Your task to perform on an android device: Go to Android settings Image 0: 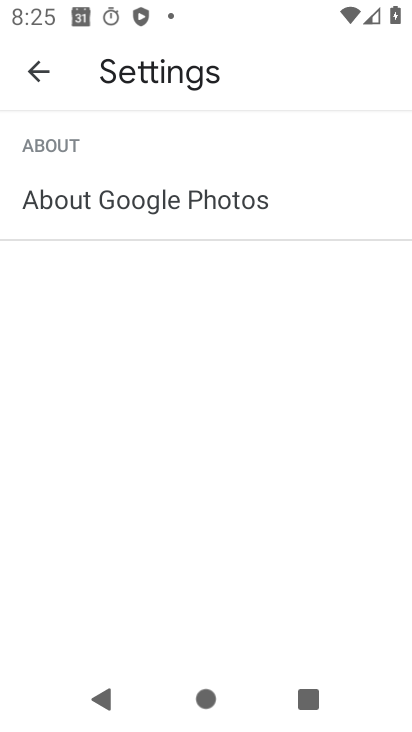
Step 0: press home button
Your task to perform on an android device: Go to Android settings Image 1: 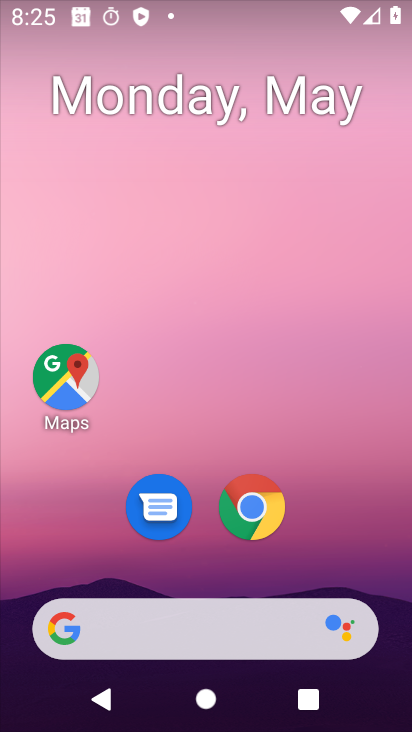
Step 1: drag from (209, 571) to (330, 38)
Your task to perform on an android device: Go to Android settings Image 2: 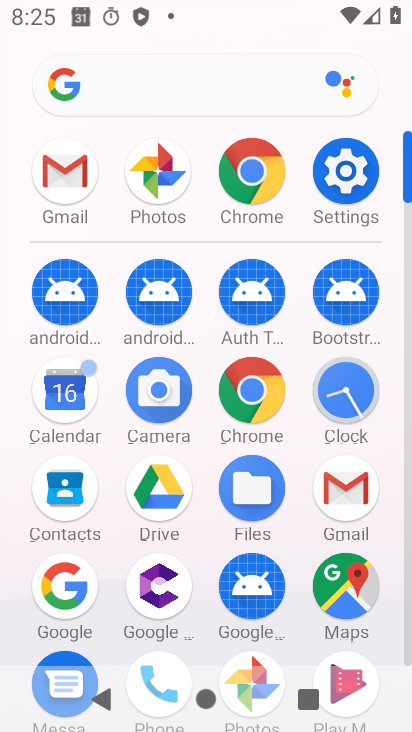
Step 2: click (358, 168)
Your task to perform on an android device: Go to Android settings Image 3: 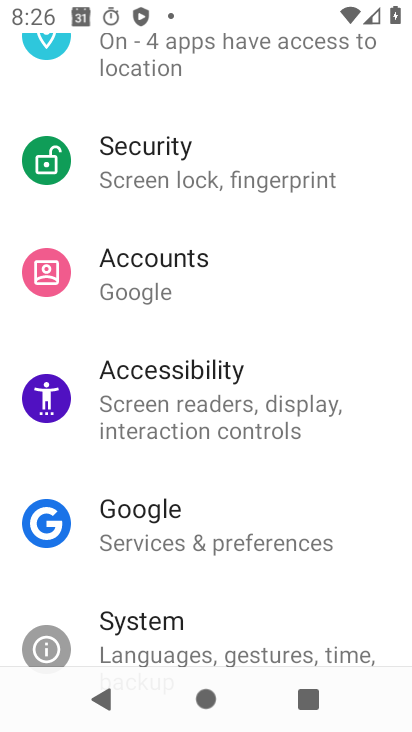
Step 3: drag from (208, 526) to (234, 148)
Your task to perform on an android device: Go to Android settings Image 4: 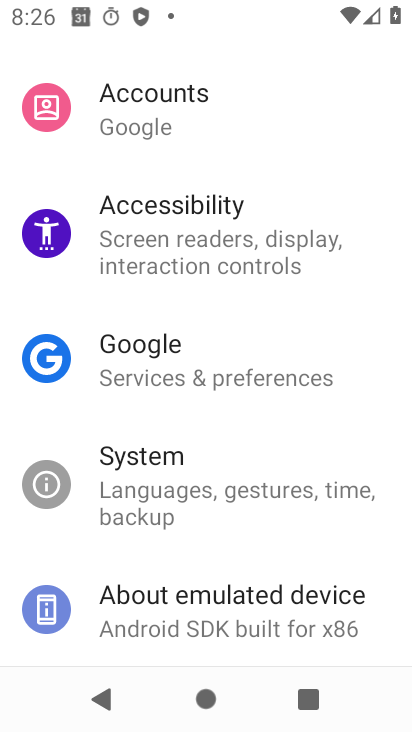
Step 4: drag from (159, 541) to (186, 413)
Your task to perform on an android device: Go to Android settings Image 5: 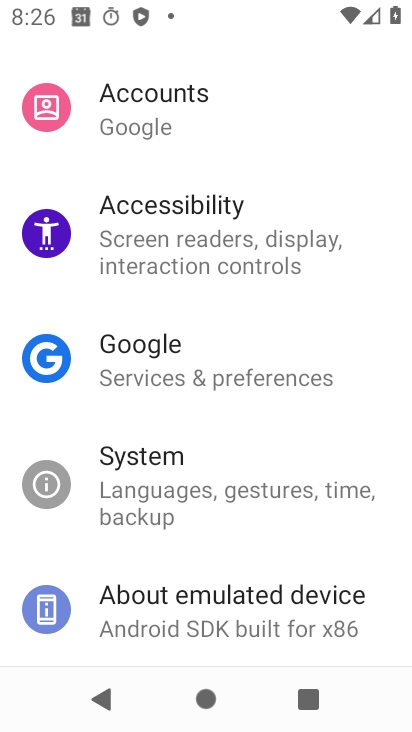
Step 5: click (191, 608)
Your task to perform on an android device: Go to Android settings Image 6: 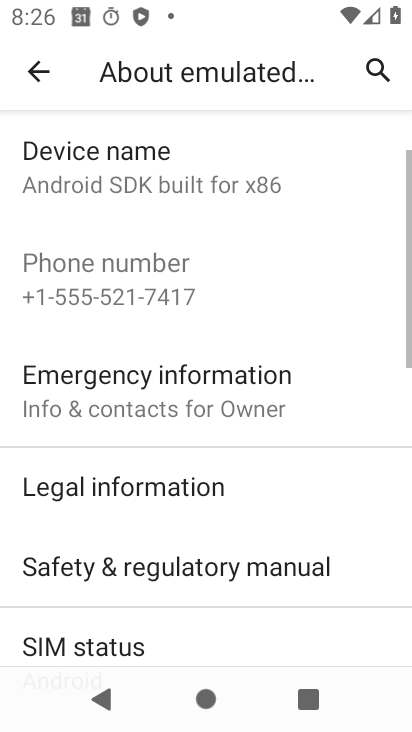
Step 6: drag from (145, 453) to (177, 288)
Your task to perform on an android device: Go to Android settings Image 7: 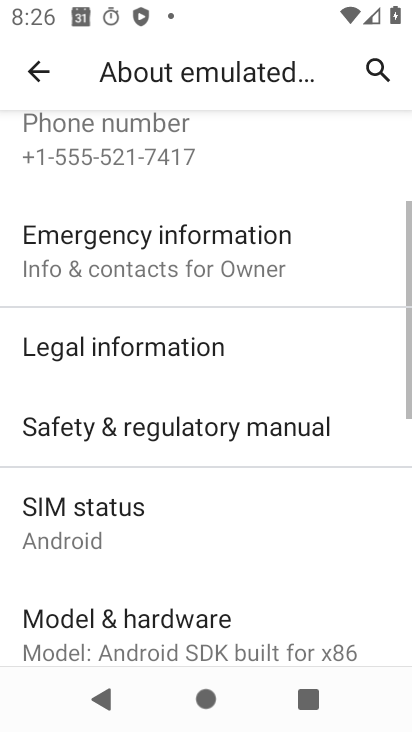
Step 7: drag from (127, 498) to (153, 296)
Your task to perform on an android device: Go to Android settings Image 8: 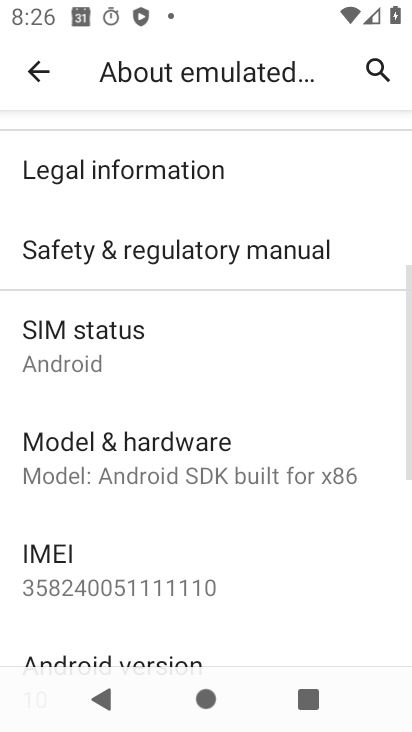
Step 8: drag from (105, 514) to (160, 292)
Your task to perform on an android device: Go to Android settings Image 9: 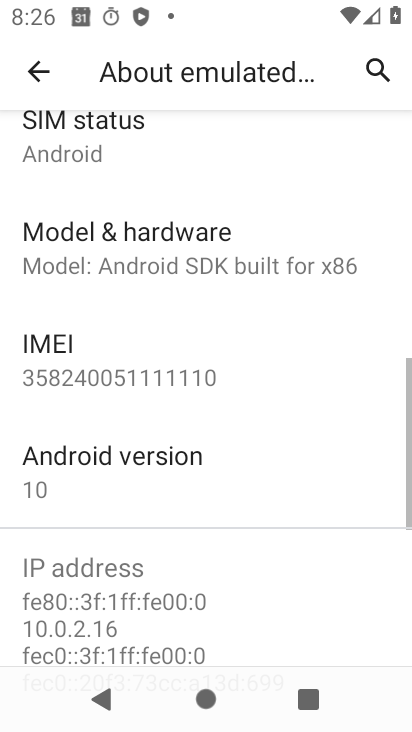
Step 9: click (147, 479)
Your task to perform on an android device: Go to Android settings Image 10: 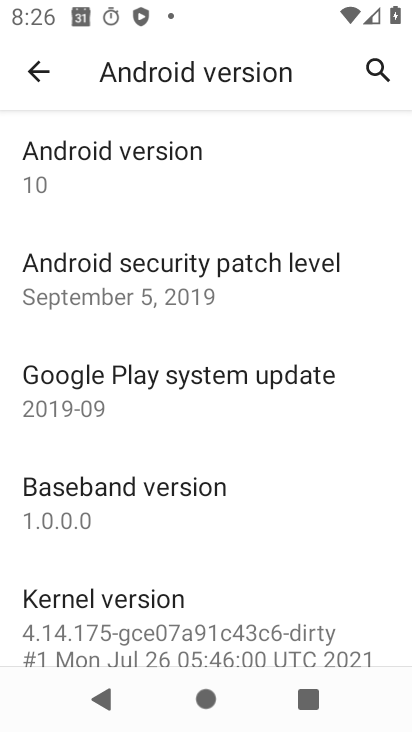
Step 10: task complete